Your task to perform on an android device: turn off wifi Image 0: 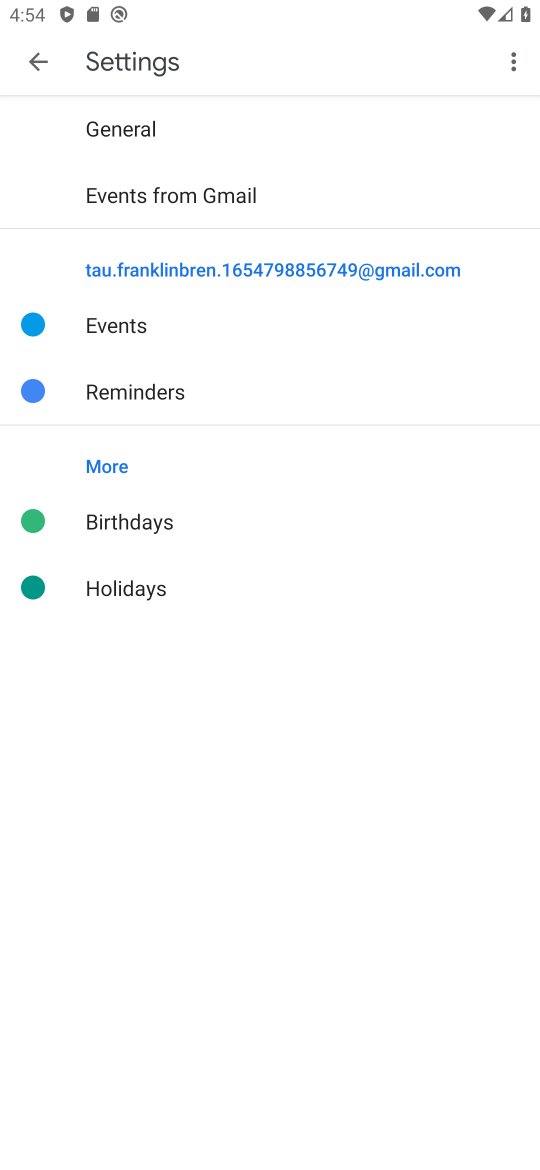
Step 0: press home button
Your task to perform on an android device: turn off wifi Image 1: 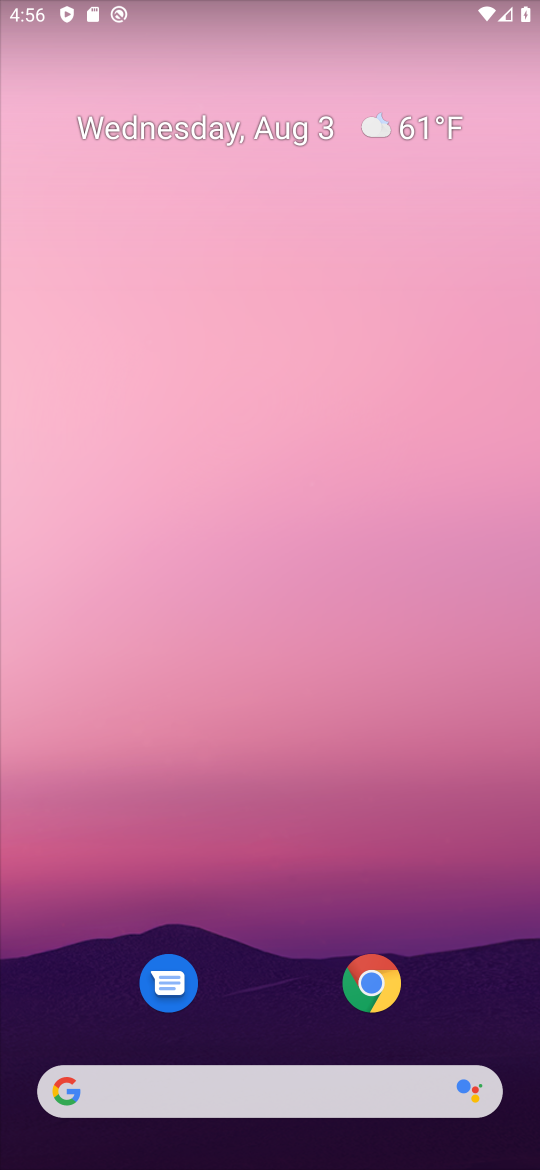
Step 1: drag from (240, 3) to (315, 870)
Your task to perform on an android device: turn off wifi Image 2: 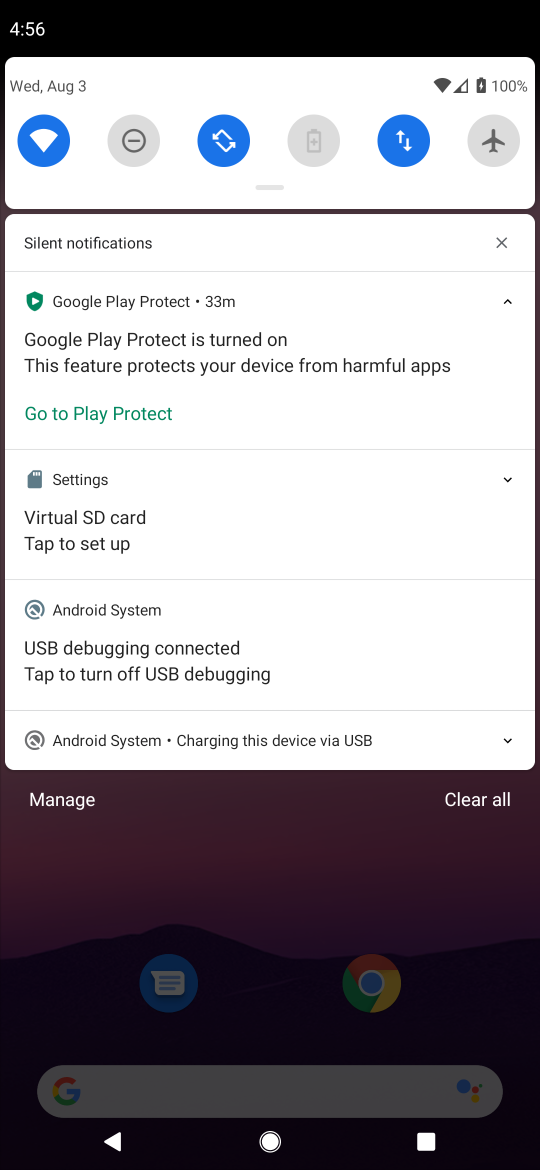
Step 2: drag from (300, 830) to (245, 19)
Your task to perform on an android device: turn off wifi Image 3: 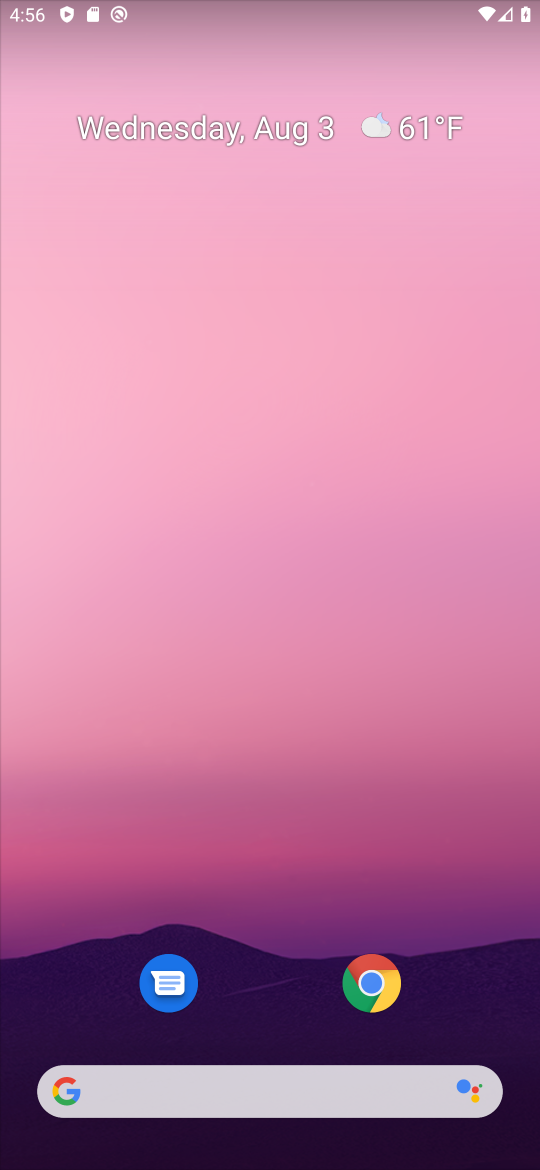
Step 3: drag from (241, 9) to (485, 1011)
Your task to perform on an android device: turn off wifi Image 4: 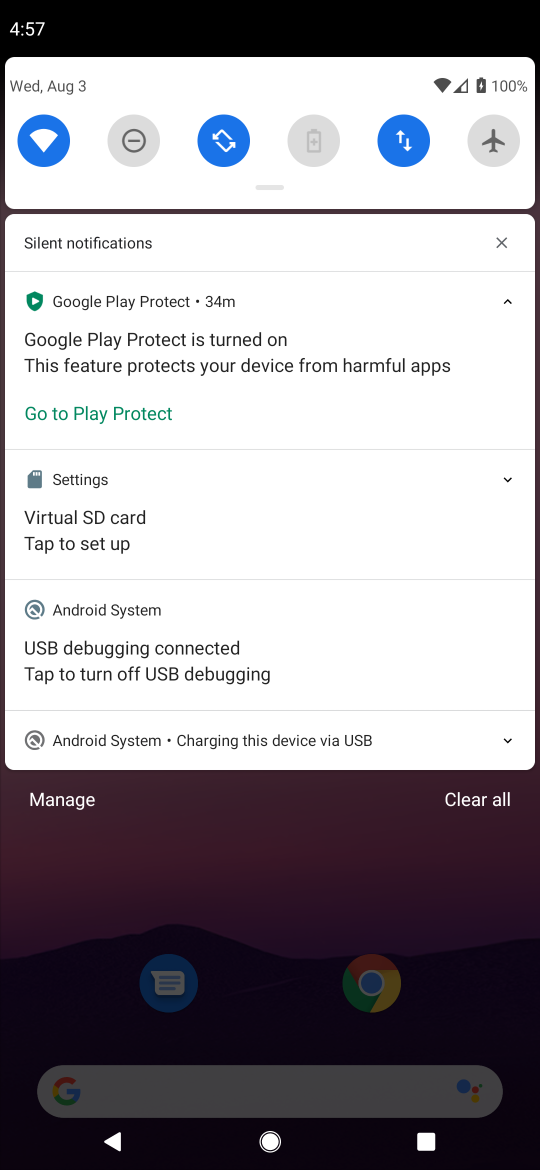
Step 4: click (44, 153)
Your task to perform on an android device: turn off wifi Image 5: 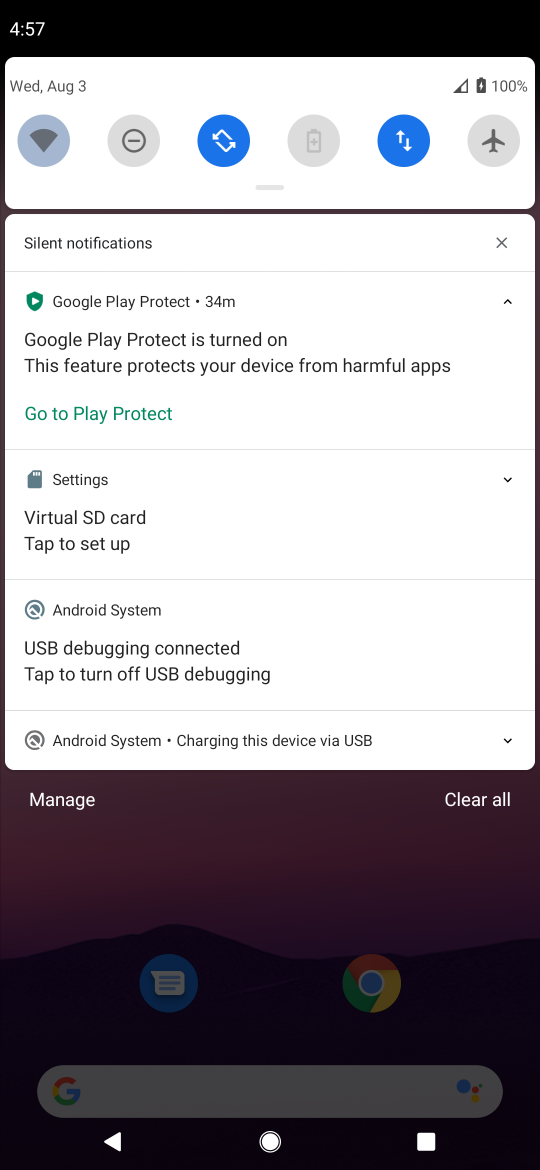
Step 5: click (44, 153)
Your task to perform on an android device: turn off wifi Image 6: 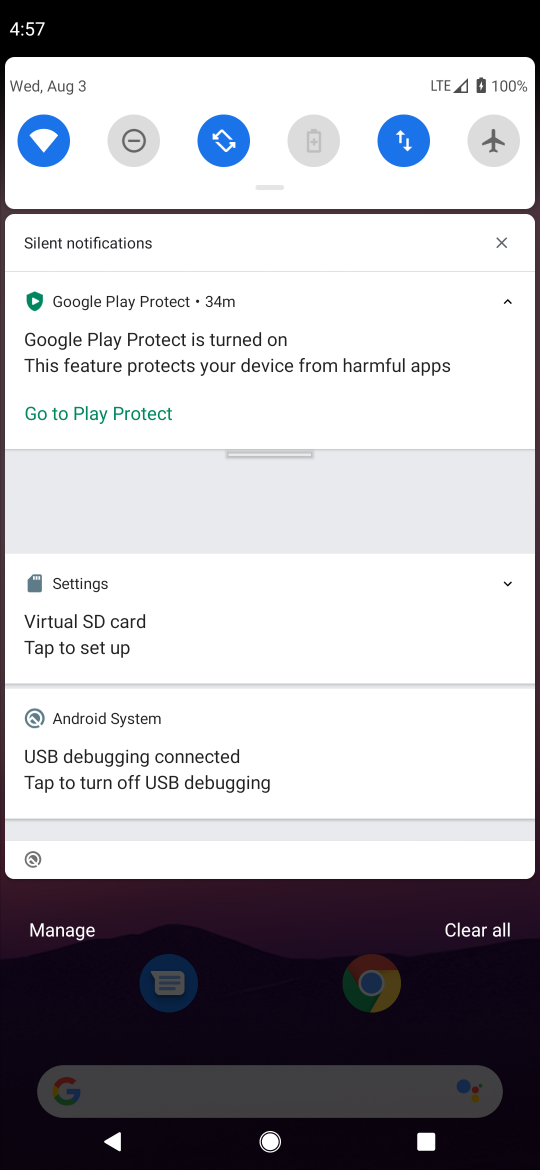
Step 6: task complete